Your task to perform on an android device: Open network settings Image 0: 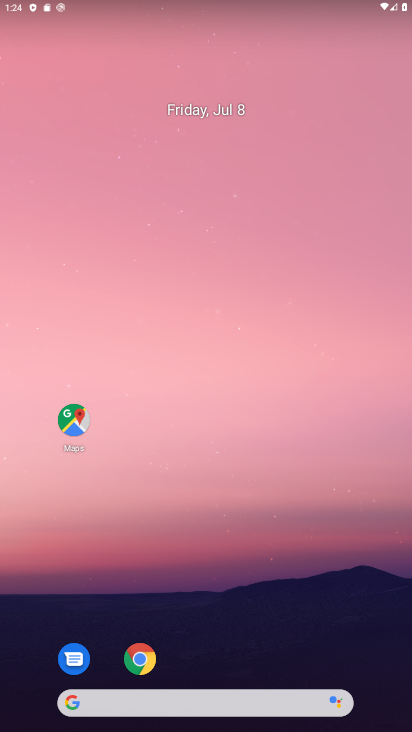
Step 0: drag from (289, 677) to (212, 101)
Your task to perform on an android device: Open network settings Image 1: 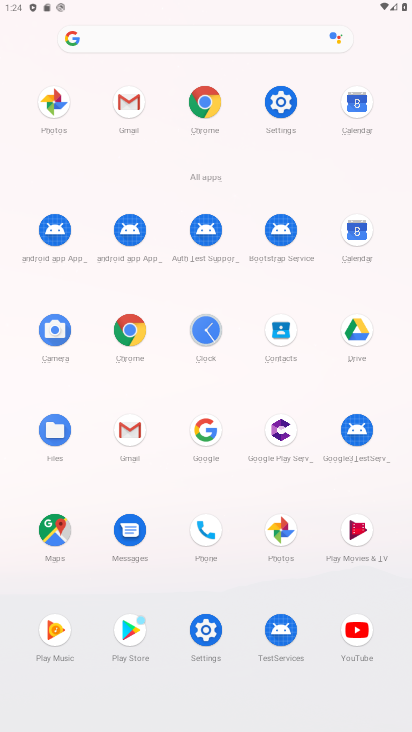
Step 1: click (266, 96)
Your task to perform on an android device: Open network settings Image 2: 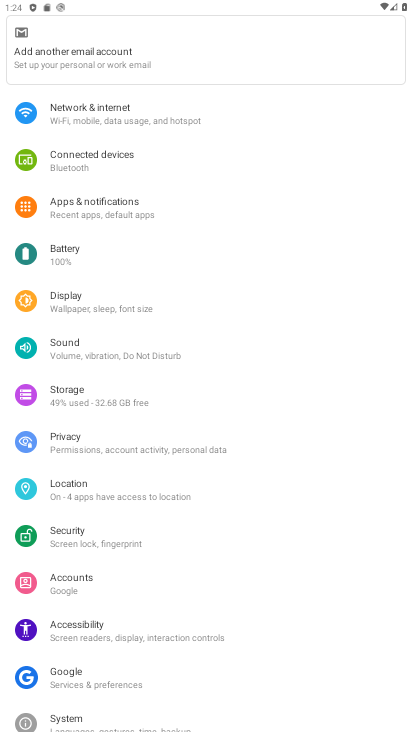
Step 2: click (69, 115)
Your task to perform on an android device: Open network settings Image 3: 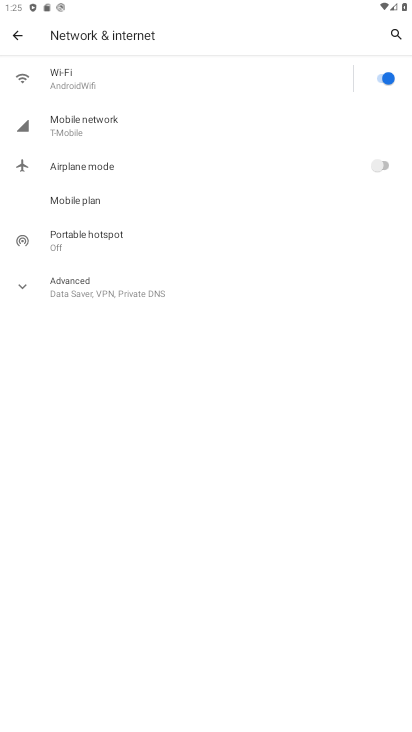
Step 3: task complete